Your task to perform on an android device: Open Google Chrome Image 0: 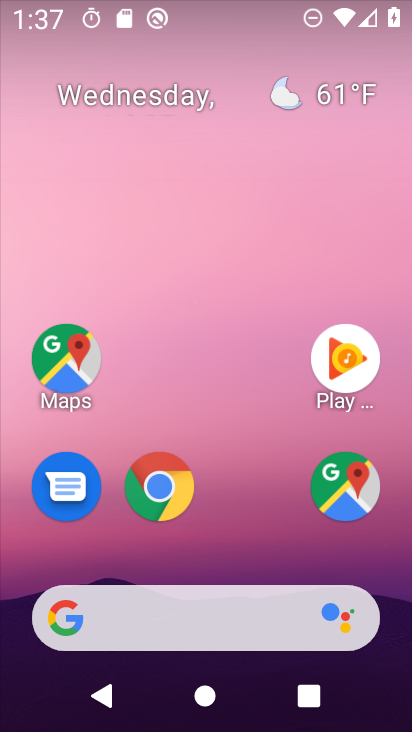
Step 0: press home button
Your task to perform on an android device: Open Google Chrome Image 1: 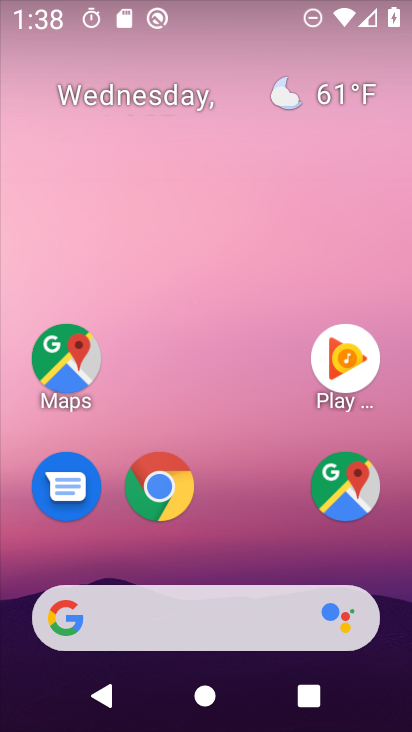
Step 1: drag from (284, 541) to (260, 32)
Your task to perform on an android device: Open Google Chrome Image 2: 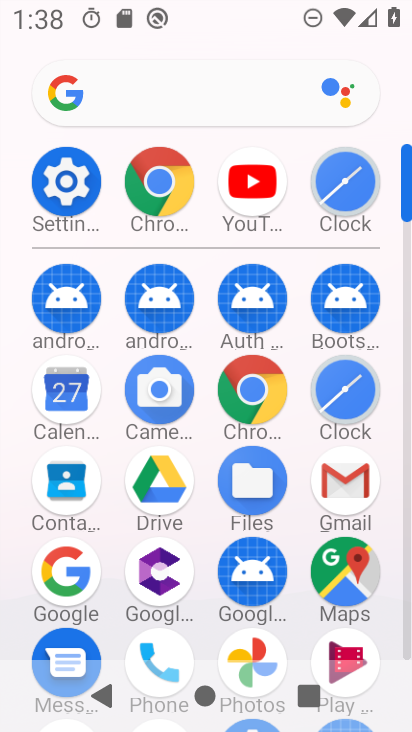
Step 2: click (265, 393)
Your task to perform on an android device: Open Google Chrome Image 3: 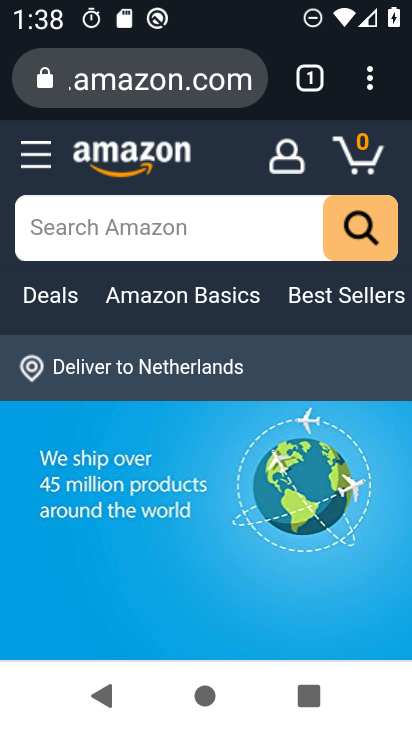
Step 3: task complete